Your task to perform on an android device: set an alarm Image 0: 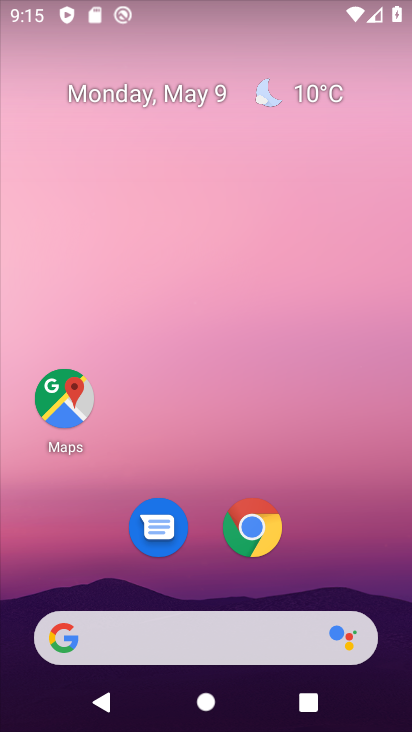
Step 0: drag from (387, 654) to (296, 170)
Your task to perform on an android device: set an alarm Image 1: 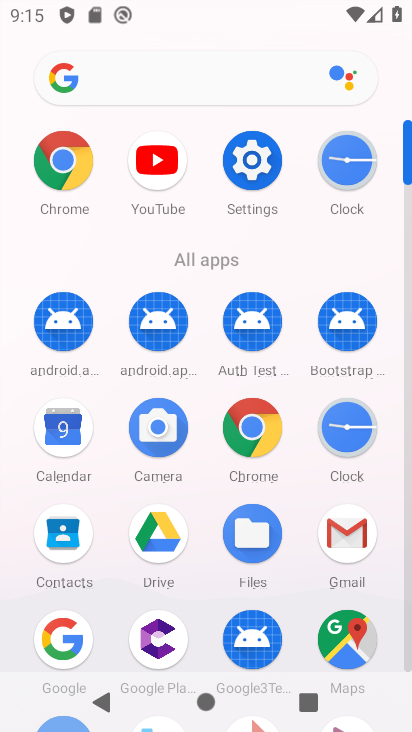
Step 1: click (405, 659)
Your task to perform on an android device: set an alarm Image 2: 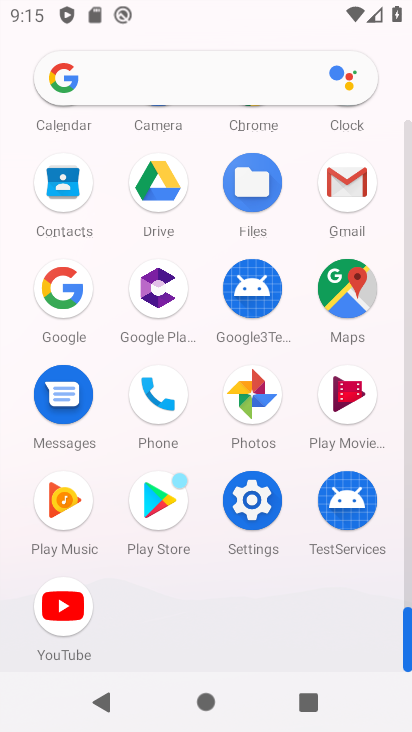
Step 2: click (406, 254)
Your task to perform on an android device: set an alarm Image 3: 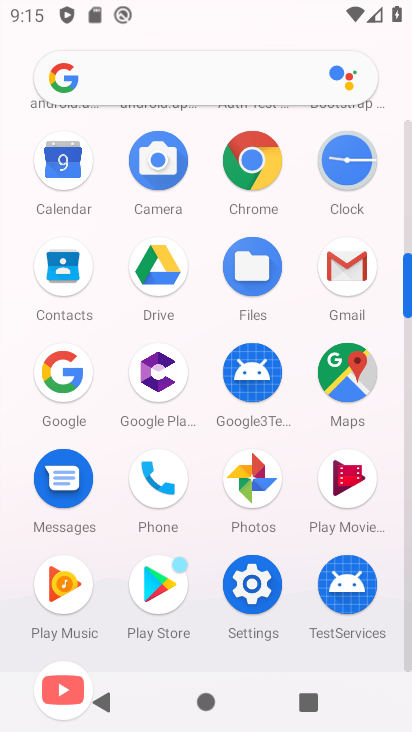
Step 3: click (343, 156)
Your task to perform on an android device: set an alarm Image 4: 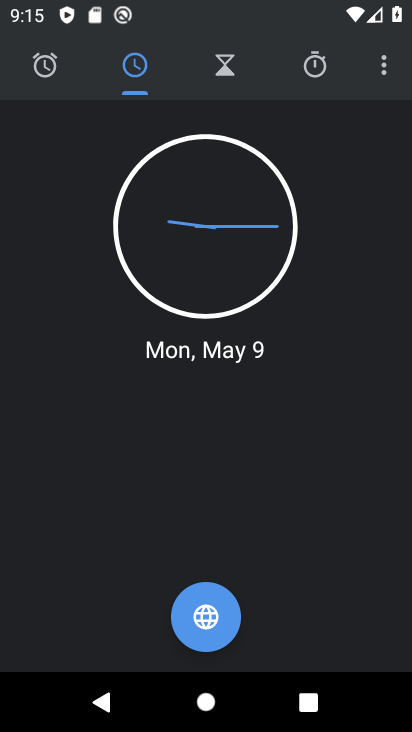
Step 4: click (42, 69)
Your task to perform on an android device: set an alarm Image 5: 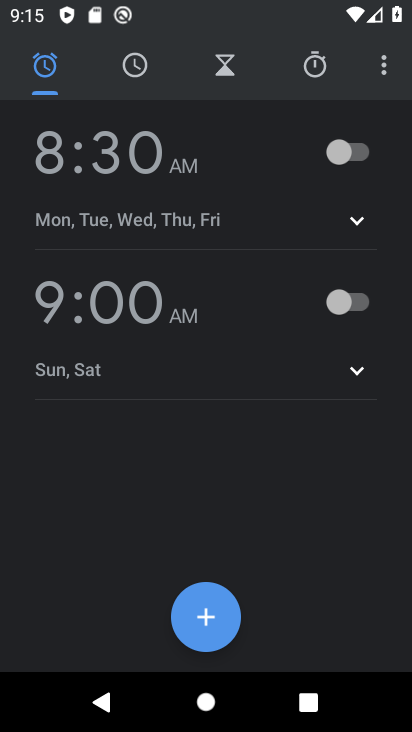
Step 5: click (55, 165)
Your task to perform on an android device: set an alarm Image 6: 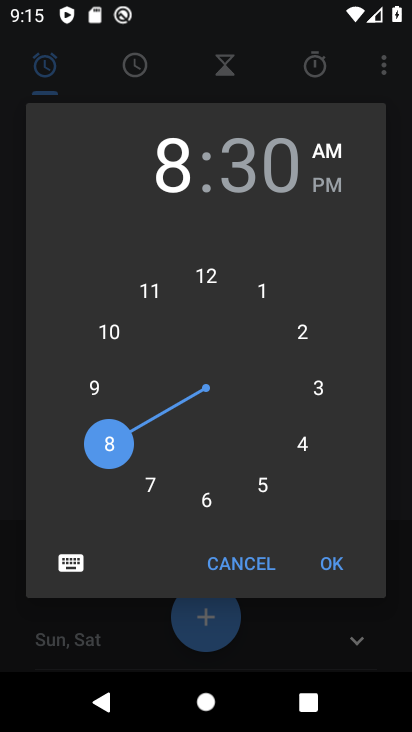
Step 6: click (207, 503)
Your task to perform on an android device: set an alarm Image 7: 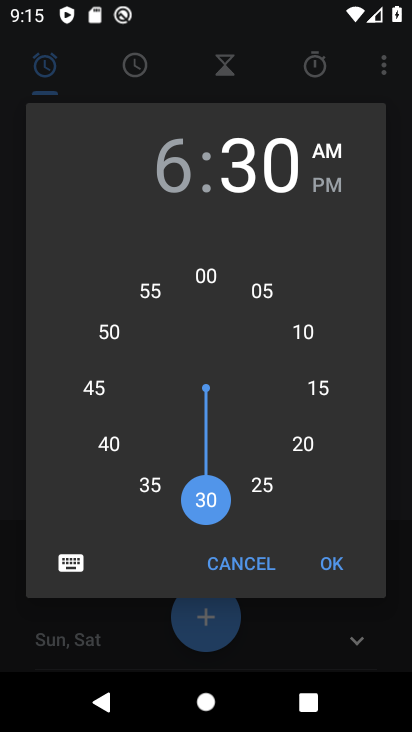
Step 7: click (314, 383)
Your task to perform on an android device: set an alarm Image 8: 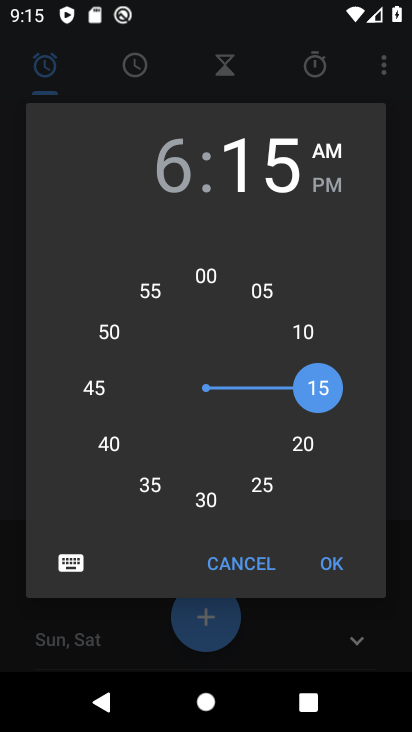
Step 8: click (335, 562)
Your task to perform on an android device: set an alarm Image 9: 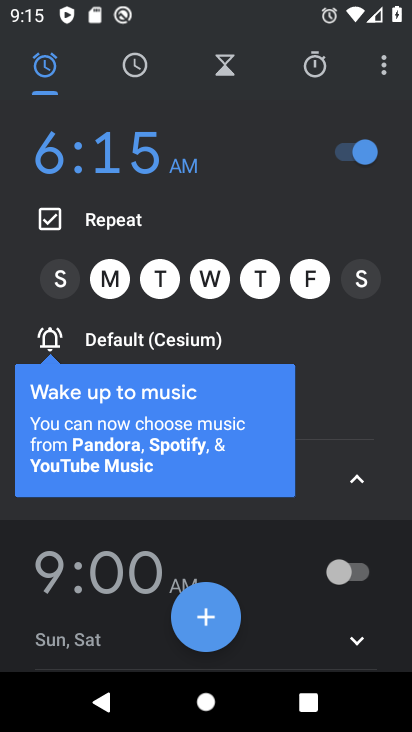
Step 9: click (359, 482)
Your task to perform on an android device: set an alarm Image 10: 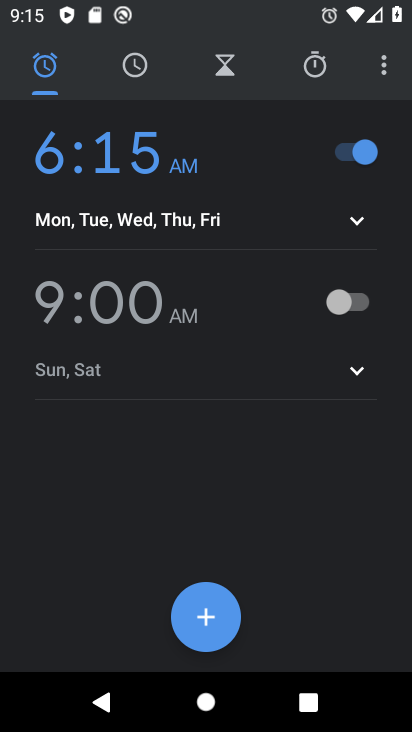
Step 10: task complete